Your task to perform on an android device: toggle pop-ups in chrome Image 0: 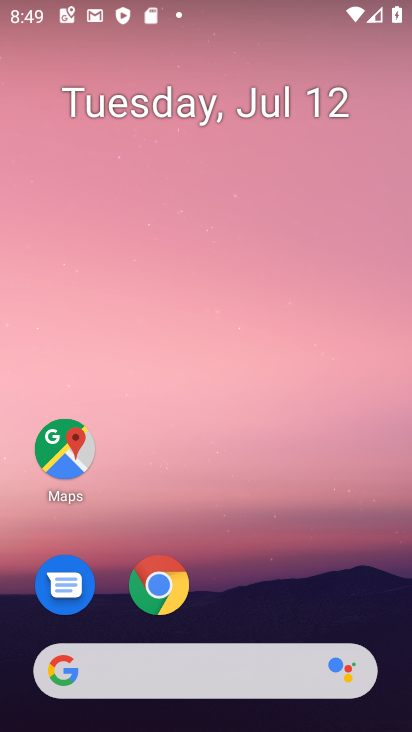
Step 0: click (163, 584)
Your task to perform on an android device: toggle pop-ups in chrome Image 1: 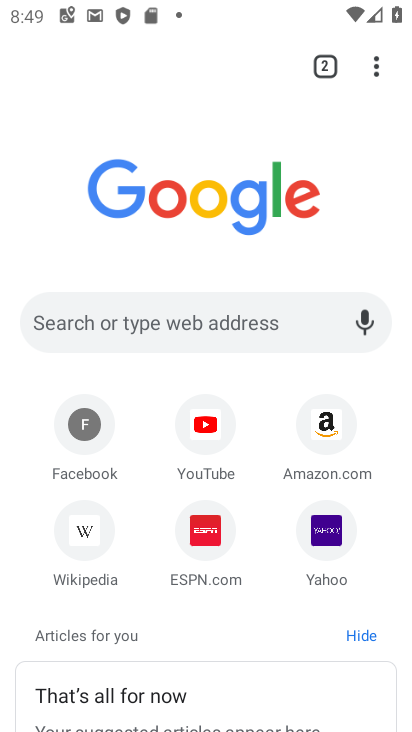
Step 1: click (377, 58)
Your task to perform on an android device: toggle pop-ups in chrome Image 2: 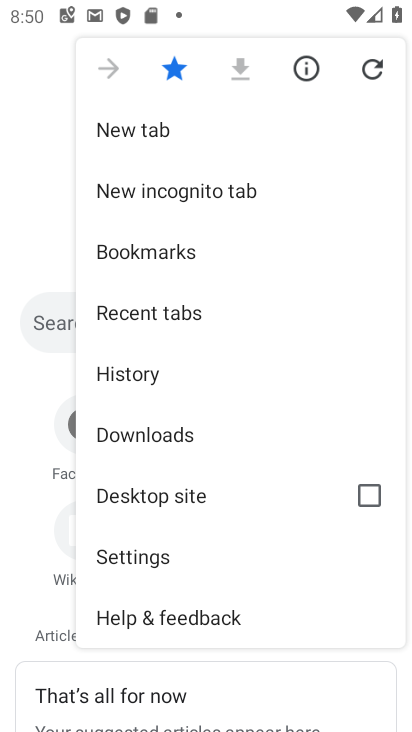
Step 2: click (145, 554)
Your task to perform on an android device: toggle pop-ups in chrome Image 3: 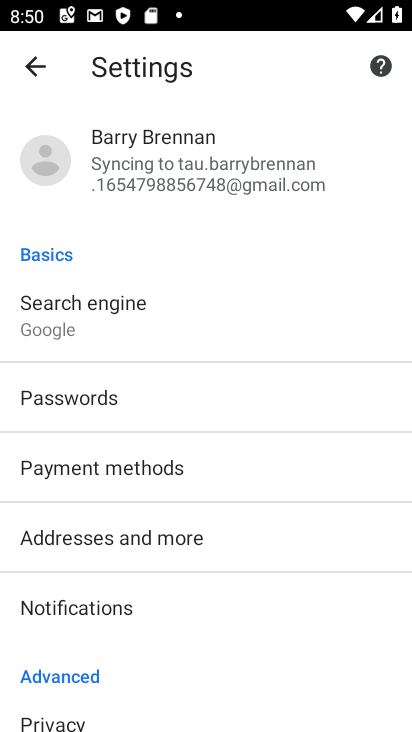
Step 3: drag from (200, 604) to (207, 263)
Your task to perform on an android device: toggle pop-ups in chrome Image 4: 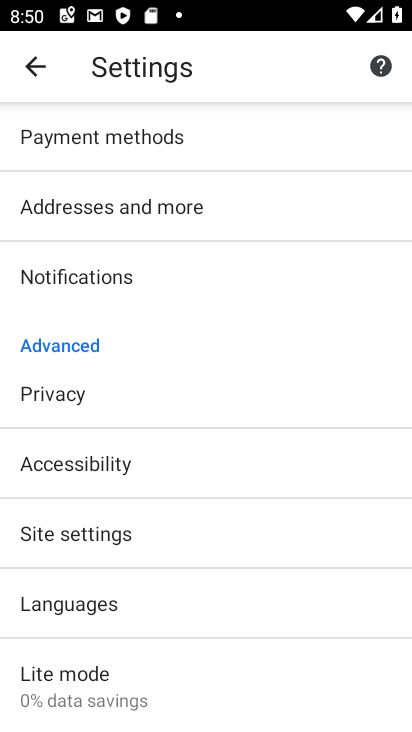
Step 4: click (120, 533)
Your task to perform on an android device: toggle pop-ups in chrome Image 5: 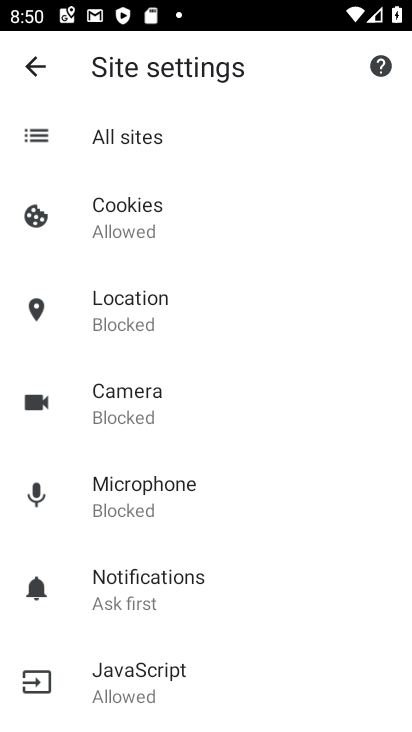
Step 5: drag from (225, 534) to (240, 281)
Your task to perform on an android device: toggle pop-ups in chrome Image 6: 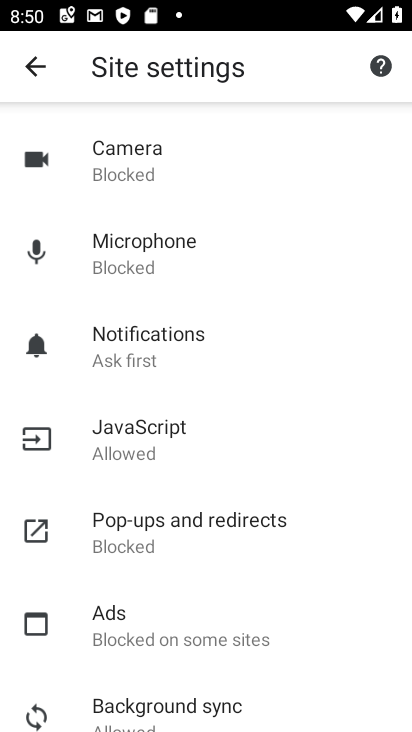
Step 6: click (193, 522)
Your task to perform on an android device: toggle pop-ups in chrome Image 7: 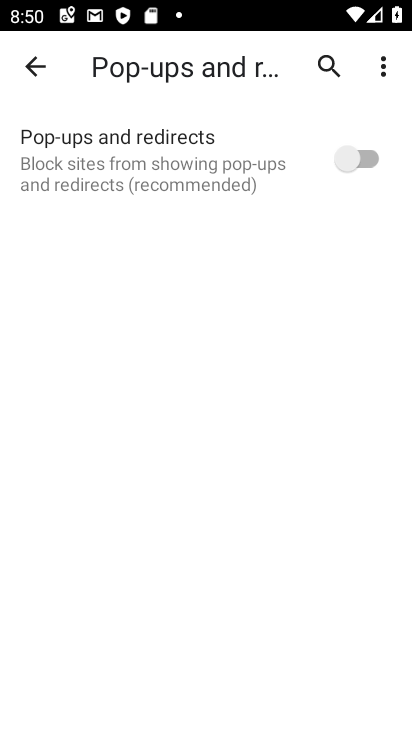
Step 7: click (355, 148)
Your task to perform on an android device: toggle pop-ups in chrome Image 8: 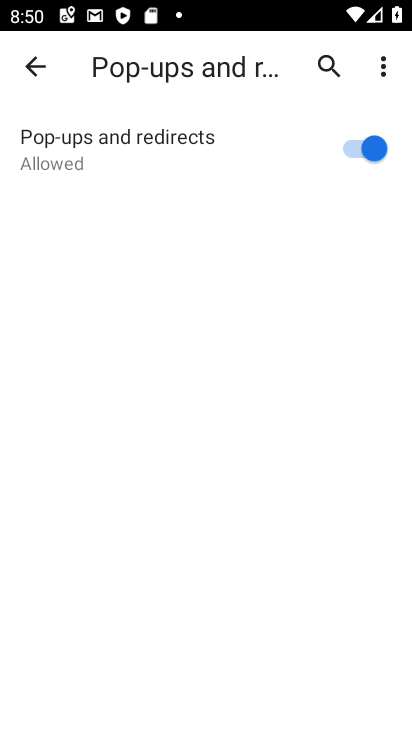
Step 8: task complete